Your task to perform on an android device: clear all cookies in the chrome app Image 0: 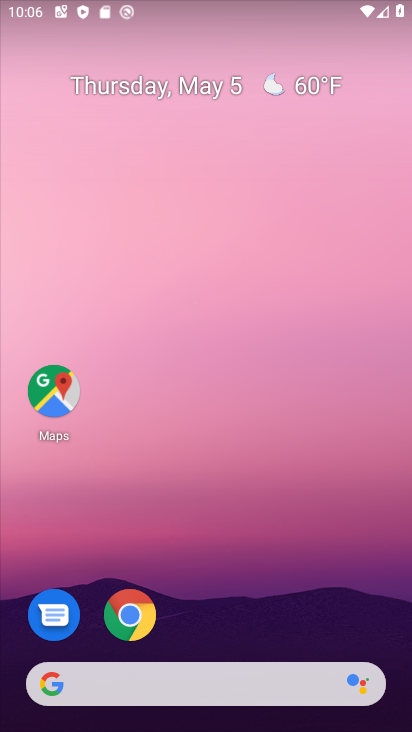
Step 0: click (128, 620)
Your task to perform on an android device: clear all cookies in the chrome app Image 1: 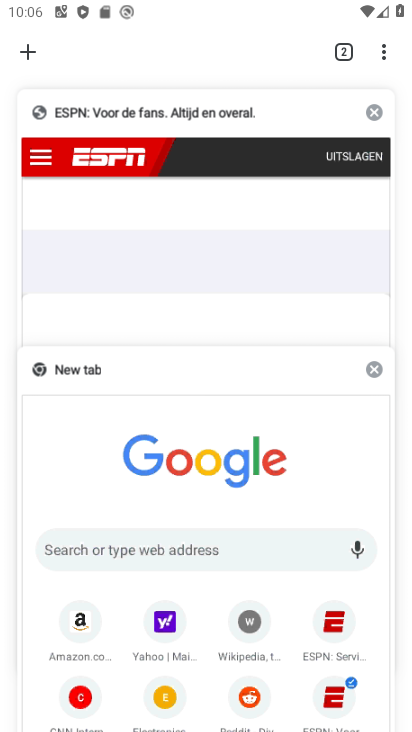
Step 1: press back button
Your task to perform on an android device: clear all cookies in the chrome app Image 2: 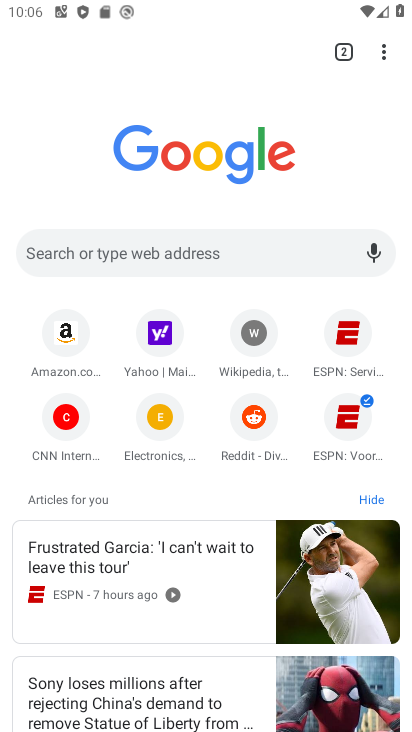
Step 2: click (375, 55)
Your task to perform on an android device: clear all cookies in the chrome app Image 3: 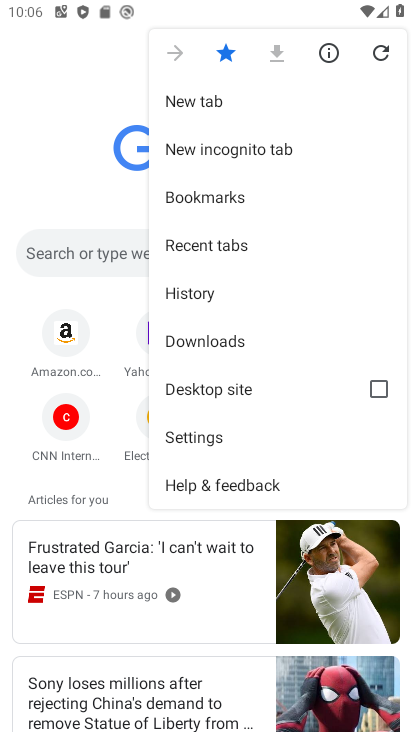
Step 3: click (206, 432)
Your task to perform on an android device: clear all cookies in the chrome app Image 4: 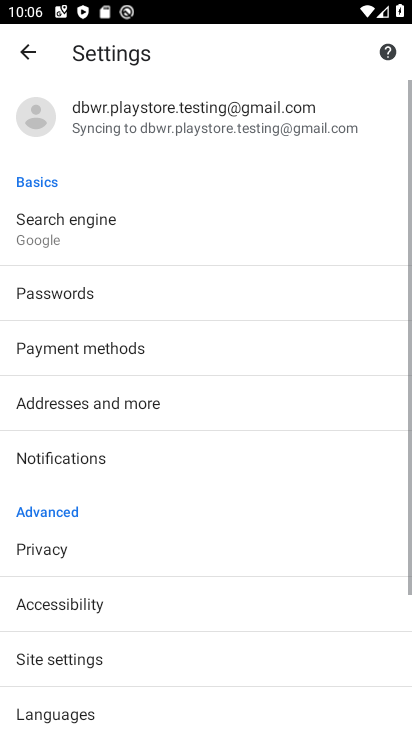
Step 4: drag from (187, 559) to (241, 218)
Your task to perform on an android device: clear all cookies in the chrome app Image 5: 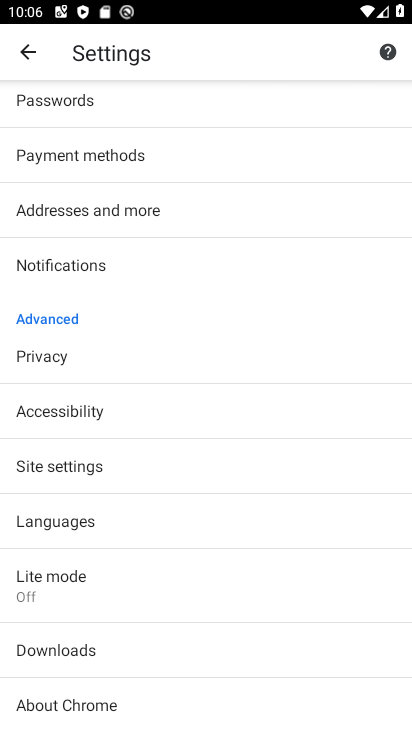
Step 5: drag from (138, 644) to (171, 358)
Your task to perform on an android device: clear all cookies in the chrome app Image 6: 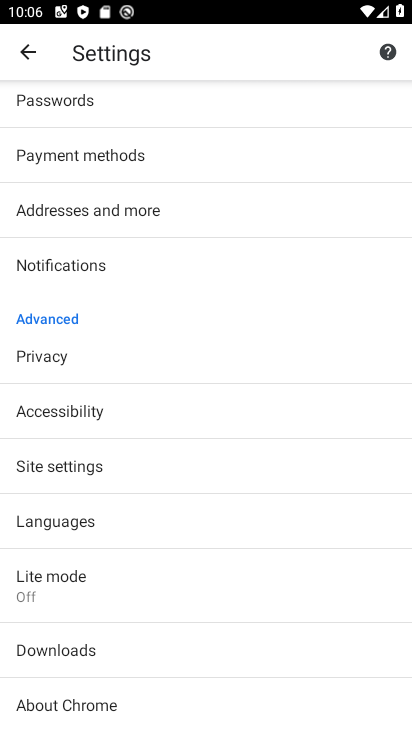
Step 6: click (77, 355)
Your task to perform on an android device: clear all cookies in the chrome app Image 7: 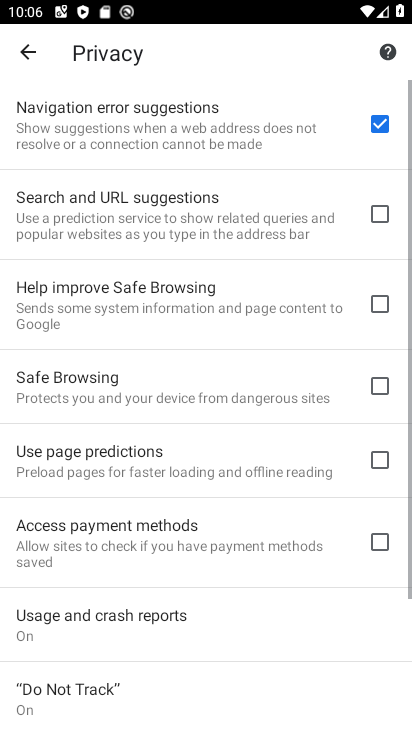
Step 7: drag from (229, 611) to (205, 114)
Your task to perform on an android device: clear all cookies in the chrome app Image 8: 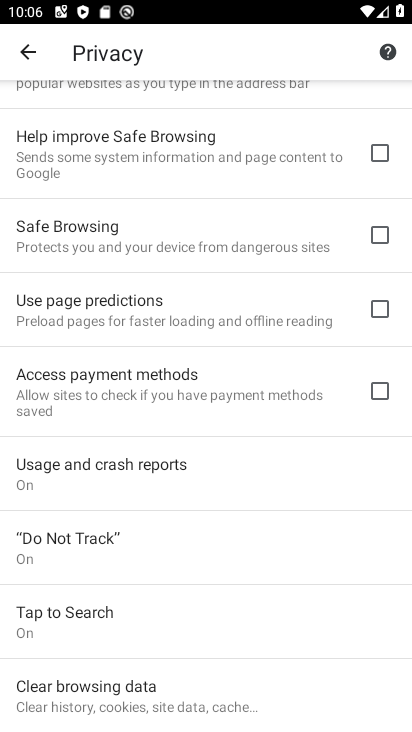
Step 8: click (94, 706)
Your task to perform on an android device: clear all cookies in the chrome app Image 9: 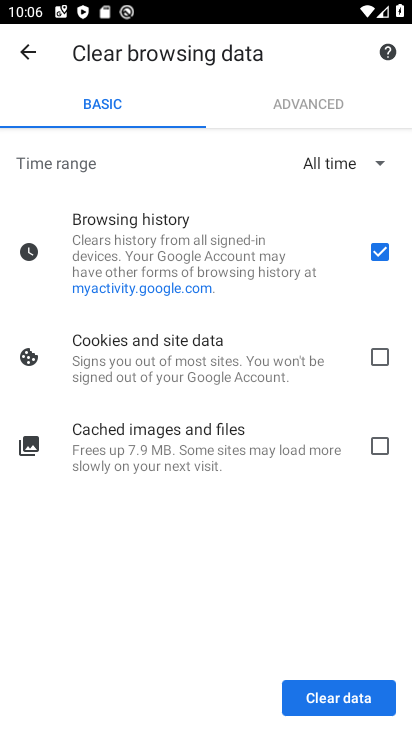
Step 9: click (376, 355)
Your task to perform on an android device: clear all cookies in the chrome app Image 10: 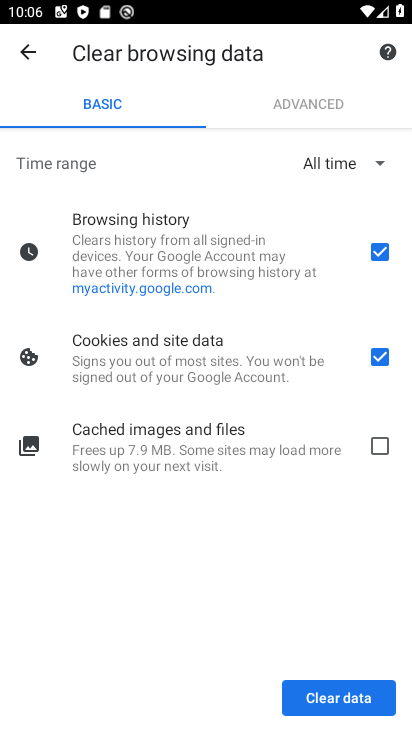
Step 10: click (382, 257)
Your task to perform on an android device: clear all cookies in the chrome app Image 11: 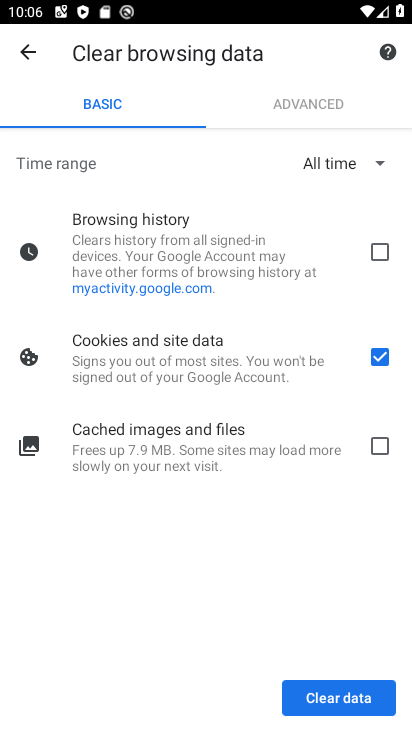
Step 11: click (320, 697)
Your task to perform on an android device: clear all cookies in the chrome app Image 12: 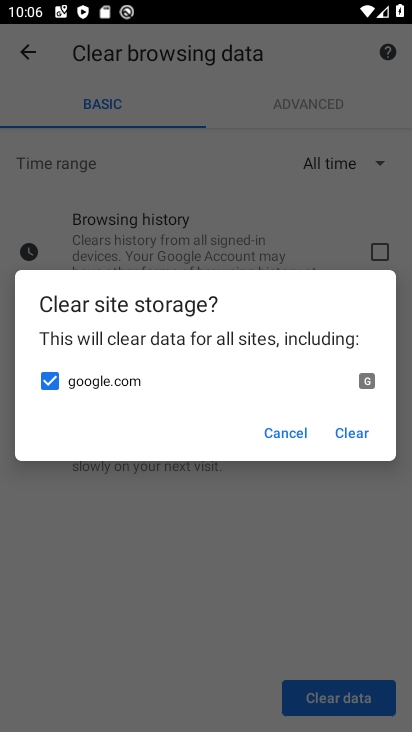
Step 12: click (348, 437)
Your task to perform on an android device: clear all cookies in the chrome app Image 13: 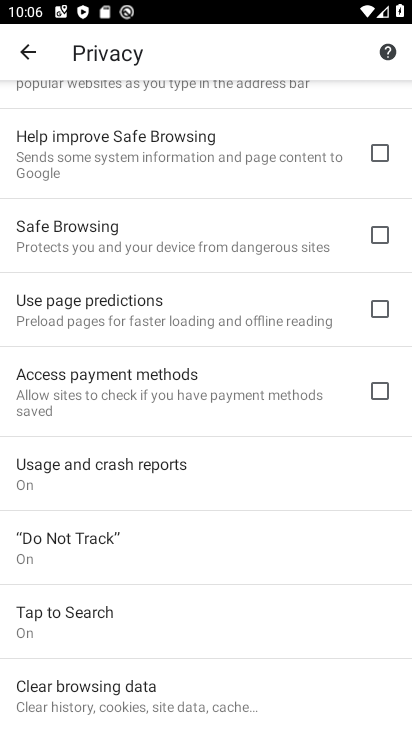
Step 13: task complete